Your task to perform on an android device: What's on my calendar tomorrow? Image 0: 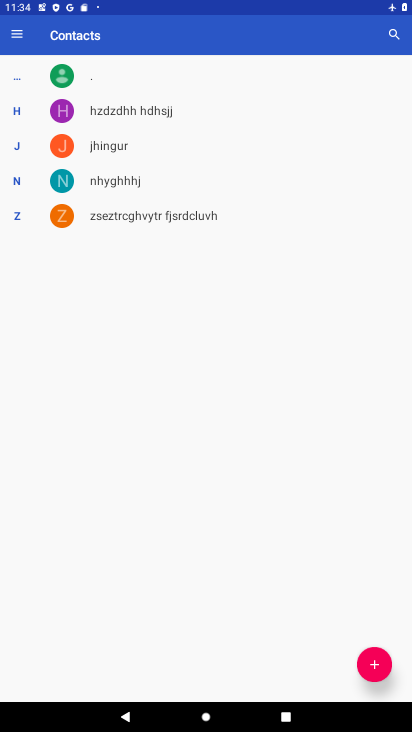
Step 0: press home button
Your task to perform on an android device: What's on my calendar tomorrow? Image 1: 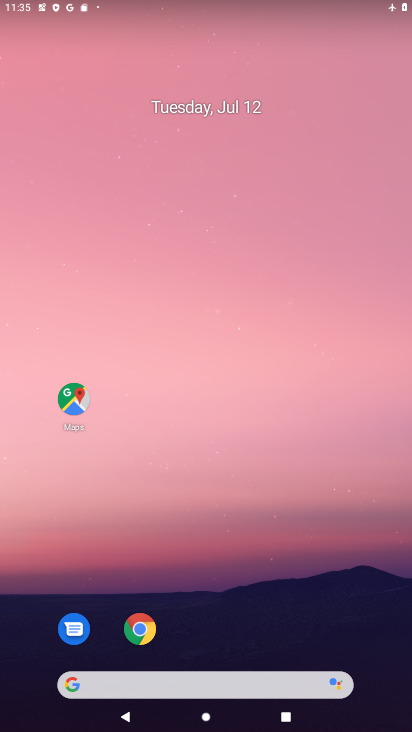
Step 1: drag from (273, 664) to (4, 198)
Your task to perform on an android device: What's on my calendar tomorrow? Image 2: 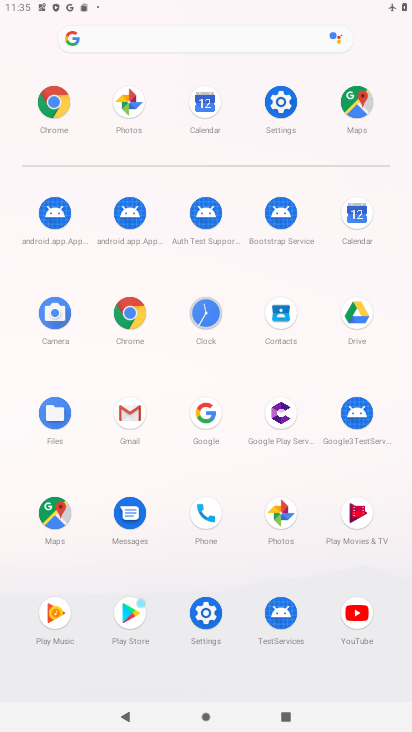
Step 2: click (356, 199)
Your task to perform on an android device: What's on my calendar tomorrow? Image 3: 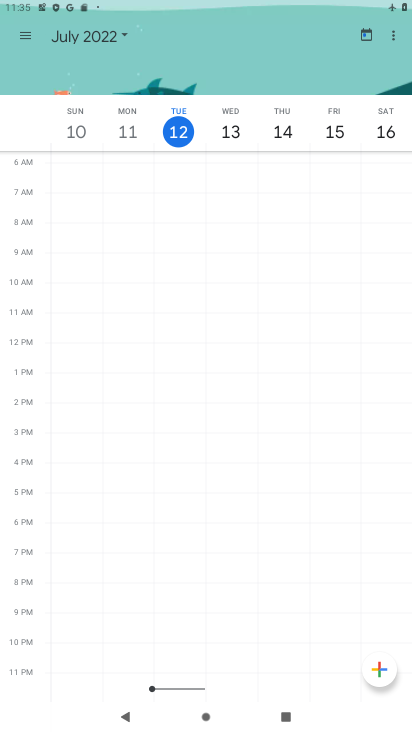
Step 3: click (280, 127)
Your task to perform on an android device: What's on my calendar tomorrow? Image 4: 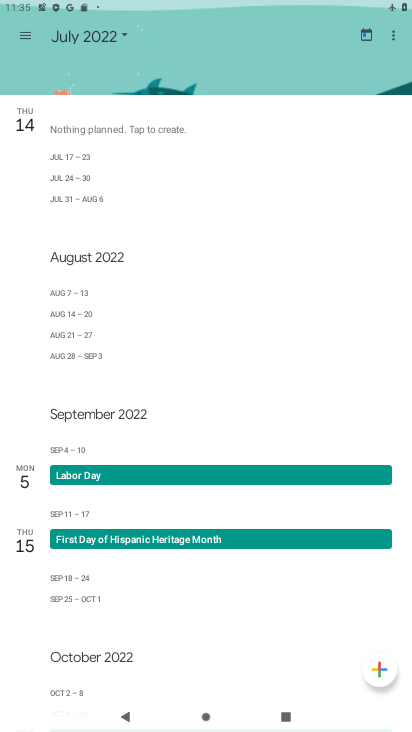
Step 4: task complete